Your task to perform on an android device: Show me recent news Image 0: 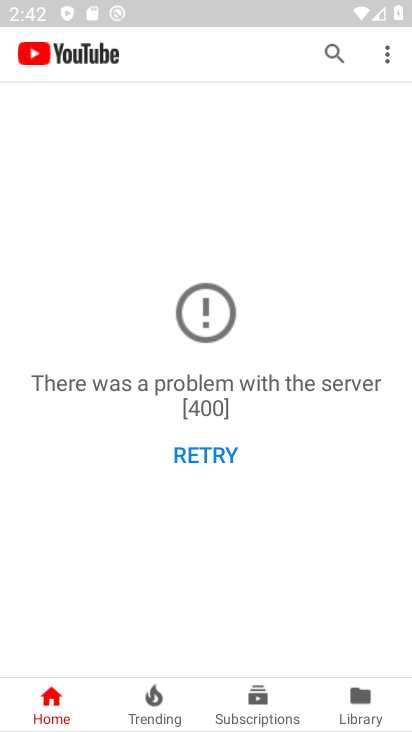
Step 0: press home button
Your task to perform on an android device: Show me recent news Image 1: 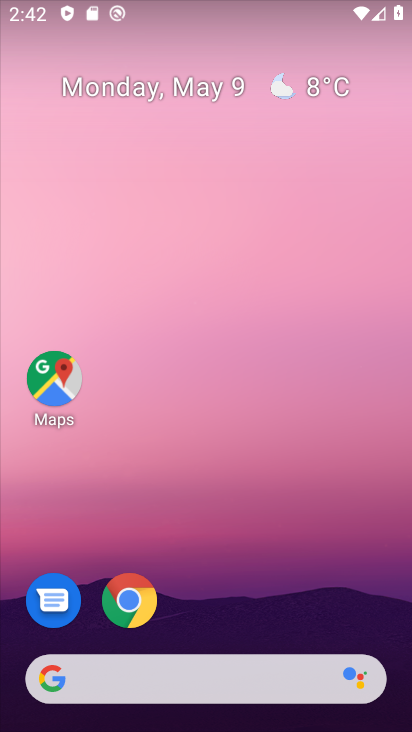
Step 1: task complete